Your task to perform on an android device: Open Google Chrome and click the shortcut for Amazon.com Image 0: 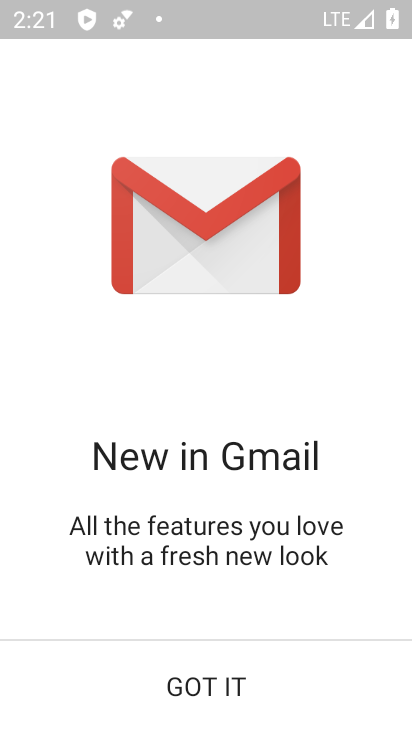
Step 0: click (204, 694)
Your task to perform on an android device: Open Google Chrome and click the shortcut for Amazon.com Image 1: 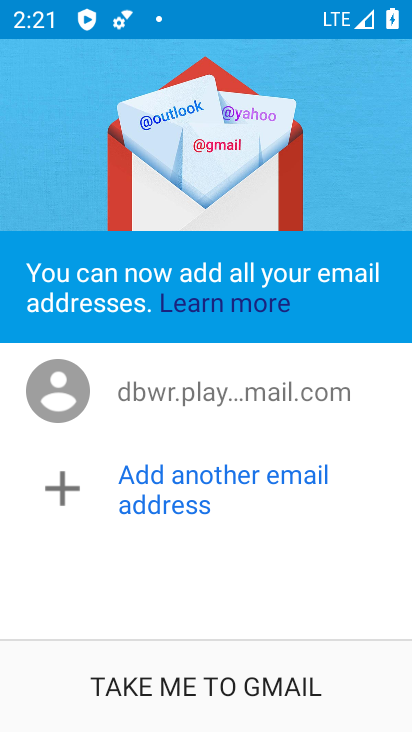
Step 1: click (202, 692)
Your task to perform on an android device: Open Google Chrome and click the shortcut for Amazon.com Image 2: 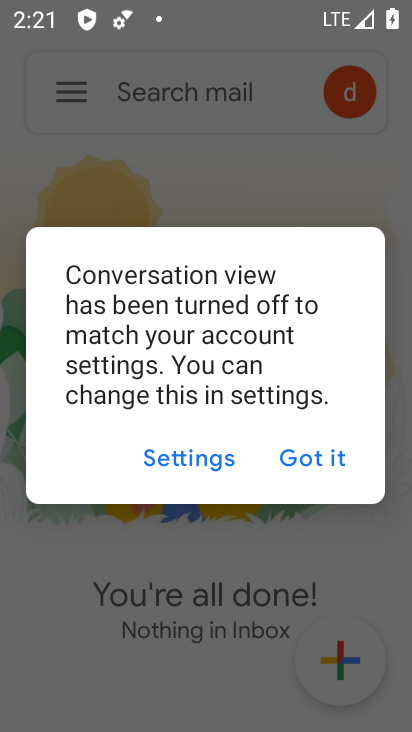
Step 2: press home button
Your task to perform on an android device: Open Google Chrome and click the shortcut for Amazon.com Image 3: 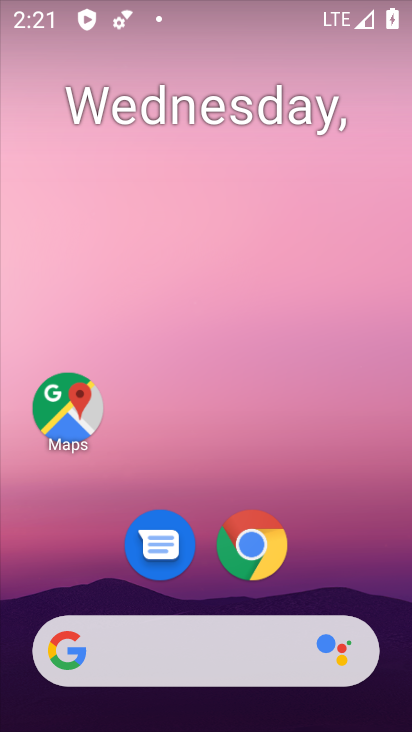
Step 3: drag from (195, 580) to (47, 36)
Your task to perform on an android device: Open Google Chrome and click the shortcut for Amazon.com Image 4: 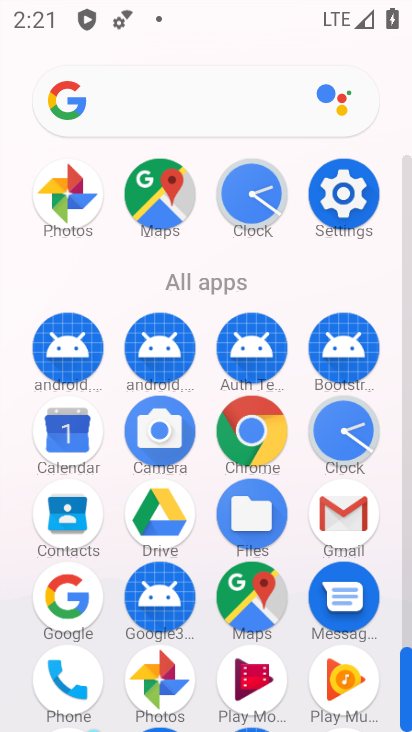
Step 4: drag from (214, 590) to (224, 351)
Your task to perform on an android device: Open Google Chrome and click the shortcut for Amazon.com Image 5: 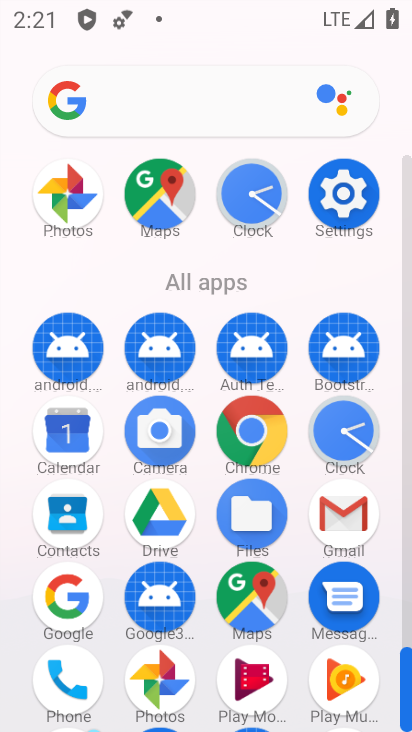
Step 5: click (247, 438)
Your task to perform on an android device: Open Google Chrome and click the shortcut for Amazon.com Image 6: 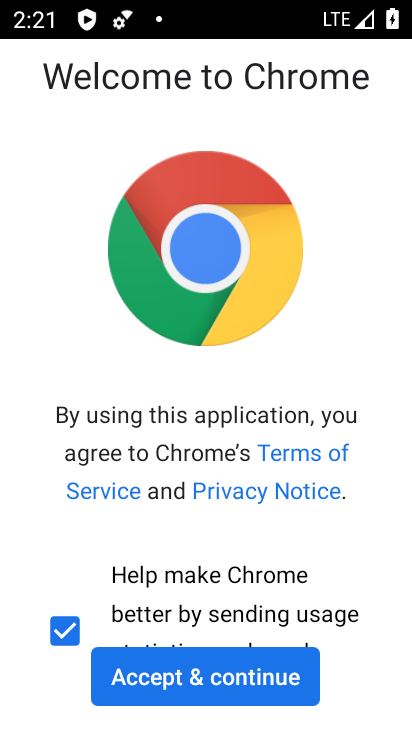
Step 6: click (171, 672)
Your task to perform on an android device: Open Google Chrome and click the shortcut for Amazon.com Image 7: 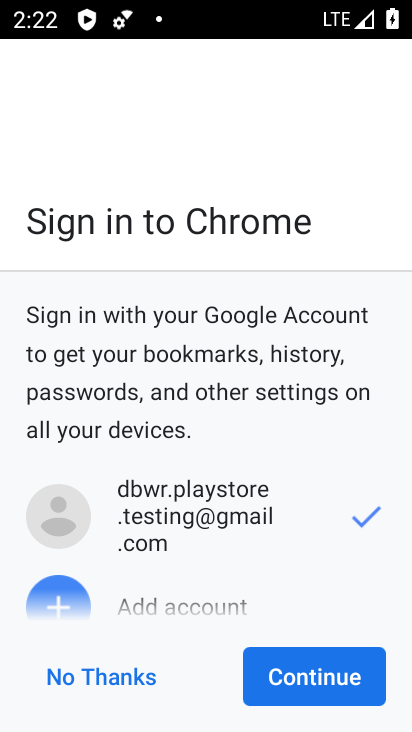
Step 7: click (256, 672)
Your task to perform on an android device: Open Google Chrome and click the shortcut for Amazon.com Image 8: 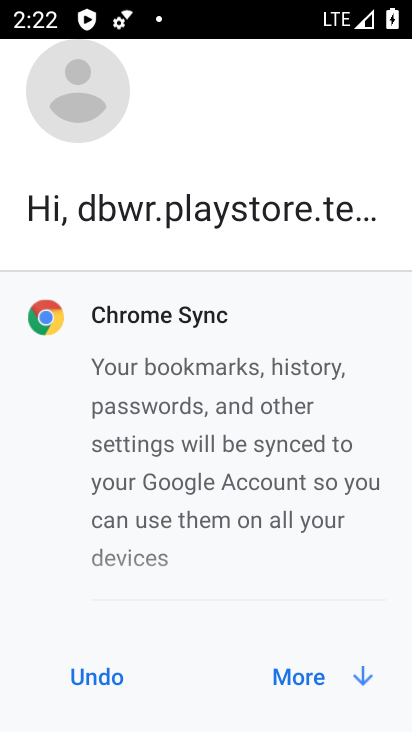
Step 8: click (287, 675)
Your task to perform on an android device: Open Google Chrome and click the shortcut for Amazon.com Image 9: 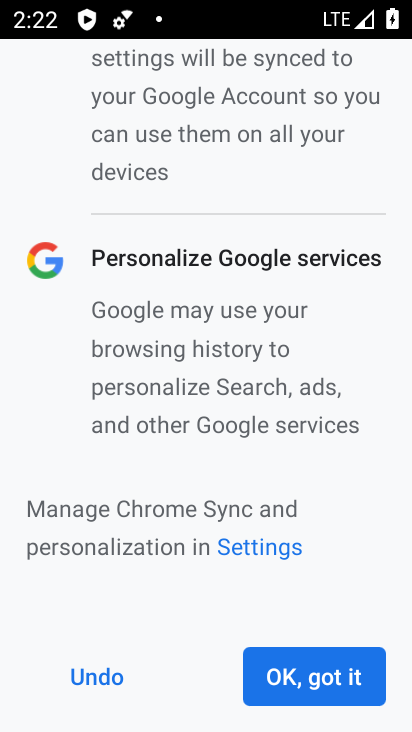
Step 9: click (287, 675)
Your task to perform on an android device: Open Google Chrome and click the shortcut for Amazon.com Image 10: 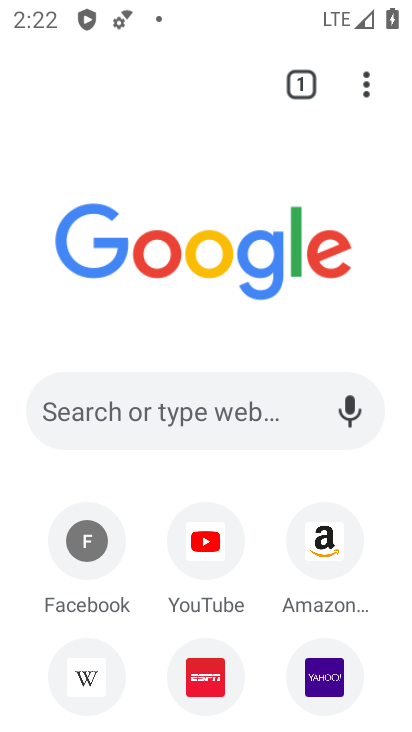
Step 10: click (337, 548)
Your task to perform on an android device: Open Google Chrome and click the shortcut for Amazon.com Image 11: 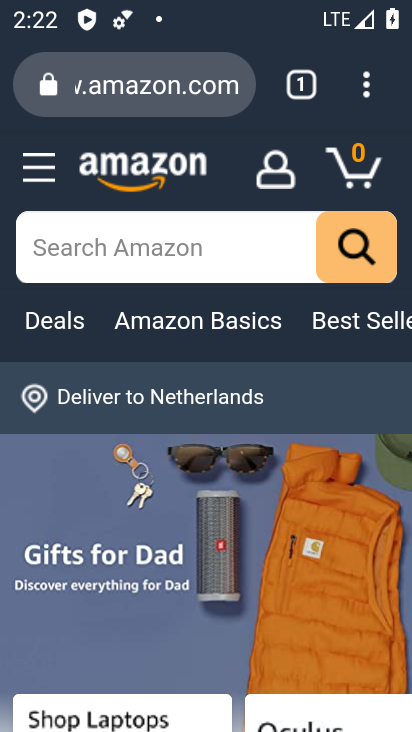
Step 11: task complete